Your task to perform on an android device: snooze an email in the gmail app Image 0: 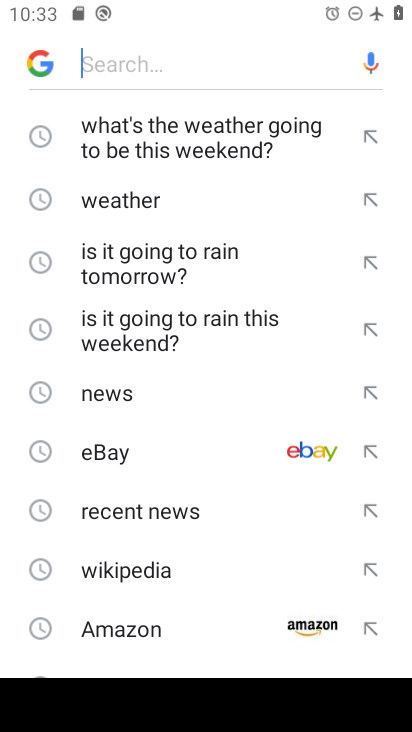
Step 0: press home button
Your task to perform on an android device: snooze an email in the gmail app Image 1: 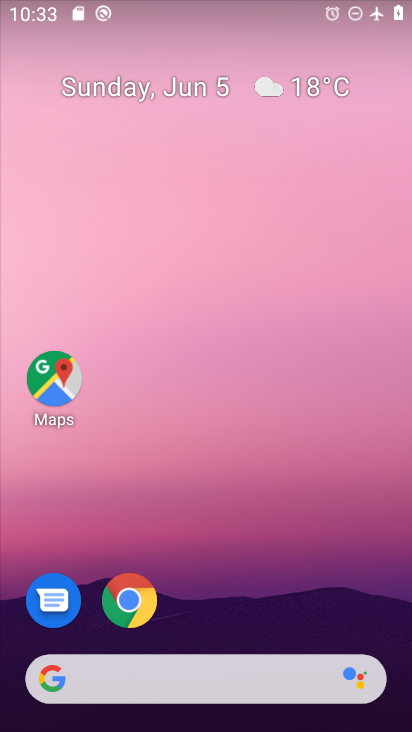
Step 1: drag from (229, 511) to (193, 46)
Your task to perform on an android device: snooze an email in the gmail app Image 2: 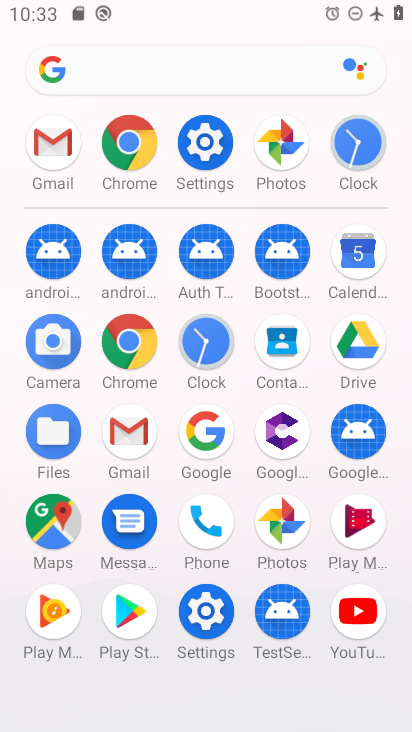
Step 2: click (60, 145)
Your task to perform on an android device: snooze an email in the gmail app Image 3: 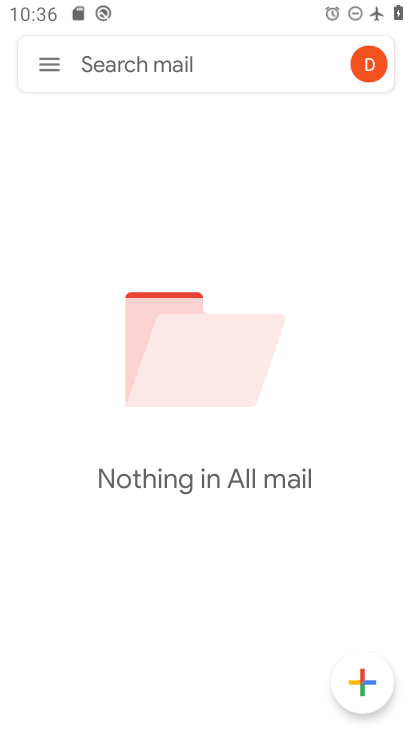
Step 3: task complete